Your task to perform on an android device: Check the weather Image 0: 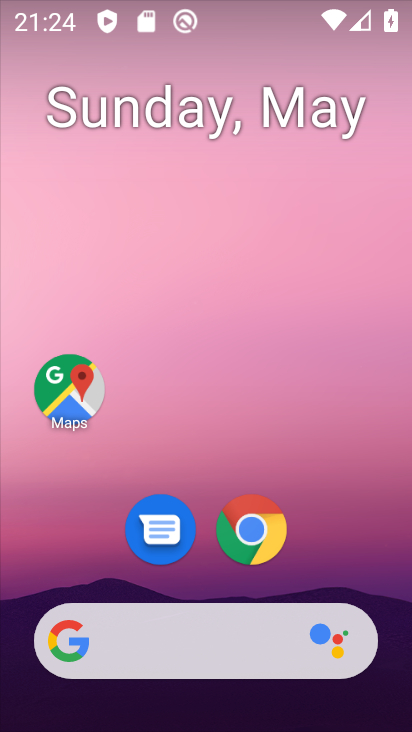
Step 0: click (176, 644)
Your task to perform on an android device: Check the weather Image 1: 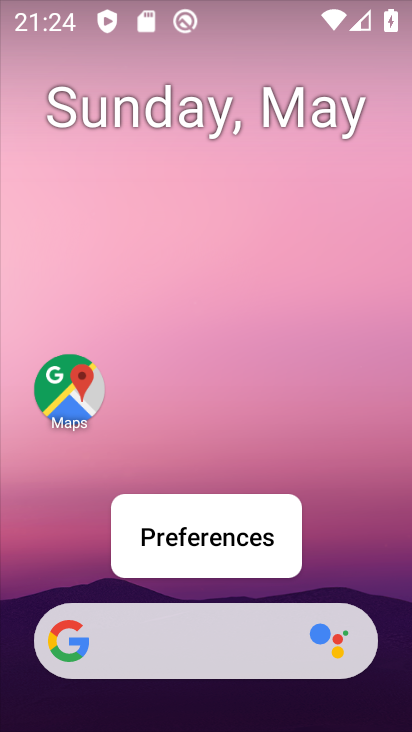
Step 1: click (123, 638)
Your task to perform on an android device: Check the weather Image 2: 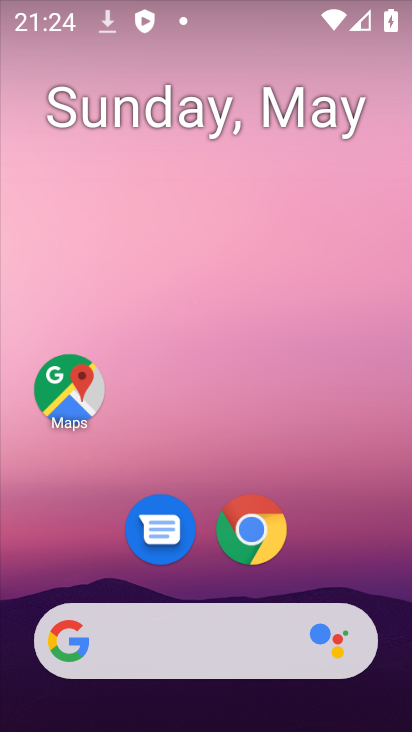
Step 2: type "weather"
Your task to perform on an android device: Check the weather Image 3: 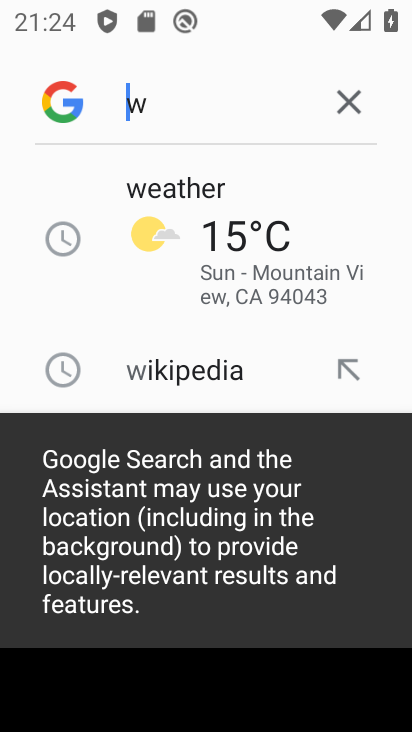
Step 3: click (170, 236)
Your task to perform on an android device: Check the weather Image 4: 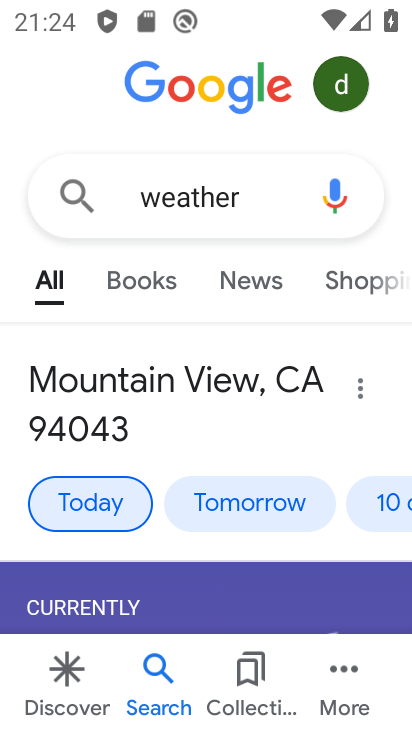
Step 4: task complete